Your task to perform on an android device: open a new tab in the chrome app Image 0: 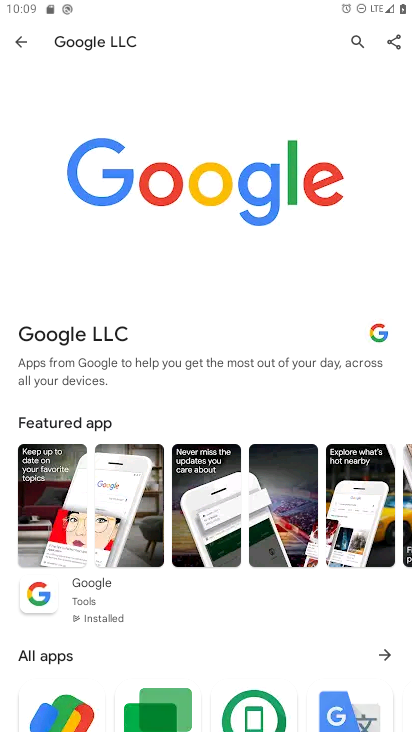
Step 0: press home button
Your task to perform on an android device: open a new tab in the chrome app Image 1: 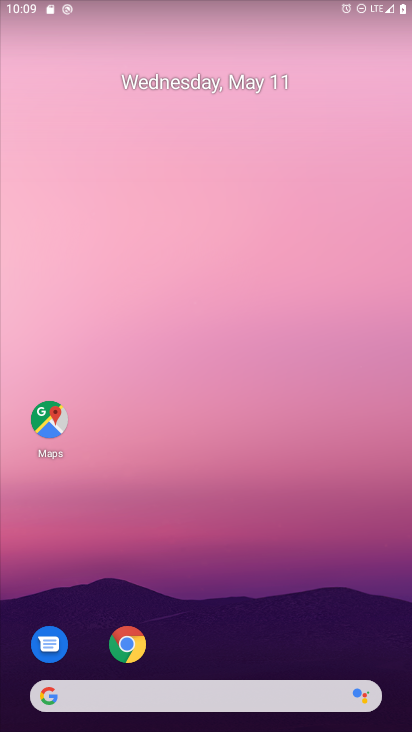
Step 1: click (130, 650)
Your task to perform on an android device: open a new tab in the chrome app Image 2: 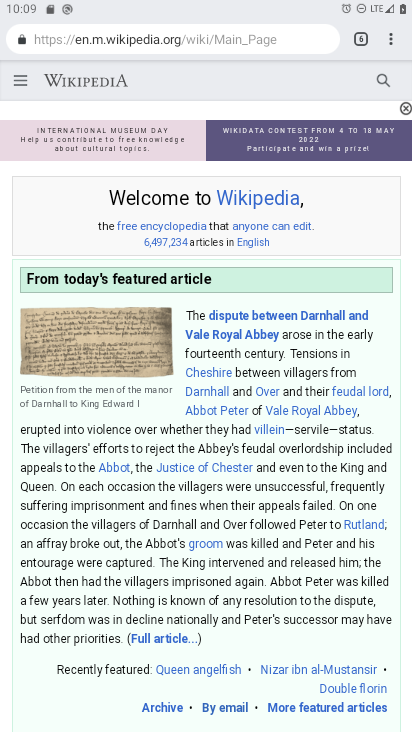
Step 2: click (387, 36)
Your task to perform on an android device: open a new tab in the chrome app Image 3: 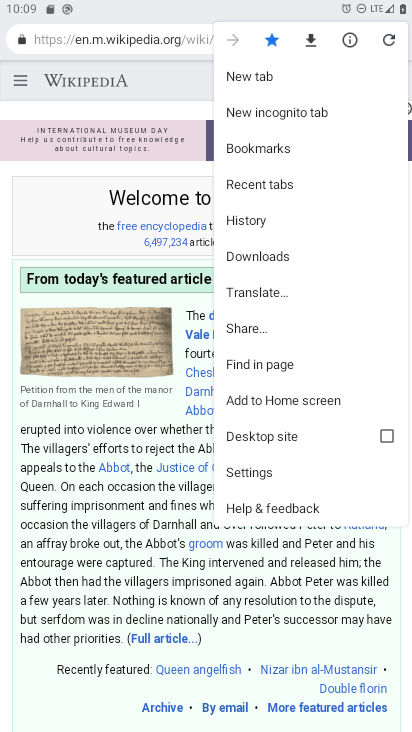
Step 3: click (246, 78)
Your task to perform on an android device: open a new tab in the chrome app Image 4: 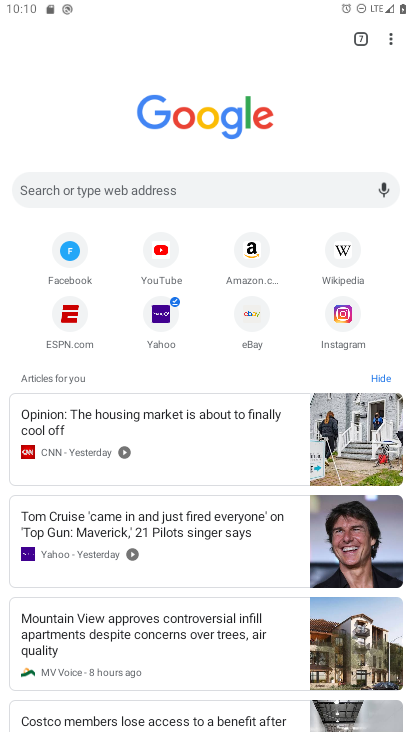
Step 4: task complete